Your task to perform on an android device: clear all cookies in the chrome app Image 0: 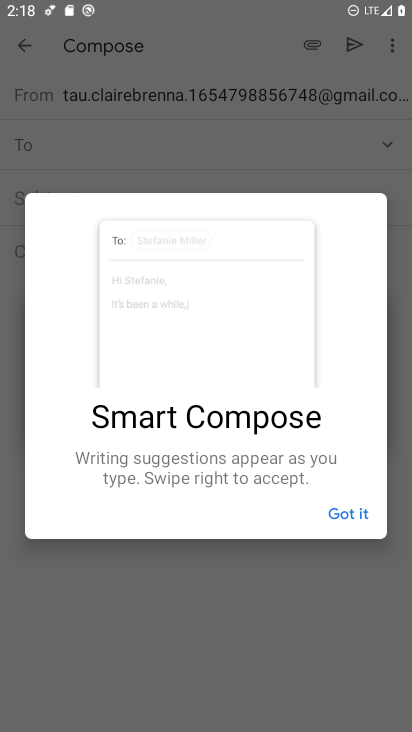
Step 0: press home button
Your task to perform on an android device: clear all cookies in the chrome app Image 1: 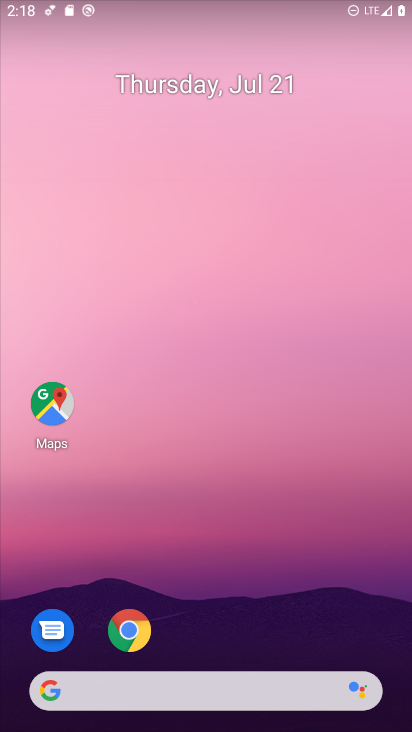
Step 1: click (126, 631)
Your task to perform on an android device: clear all cookies in the chrome app Image 2: 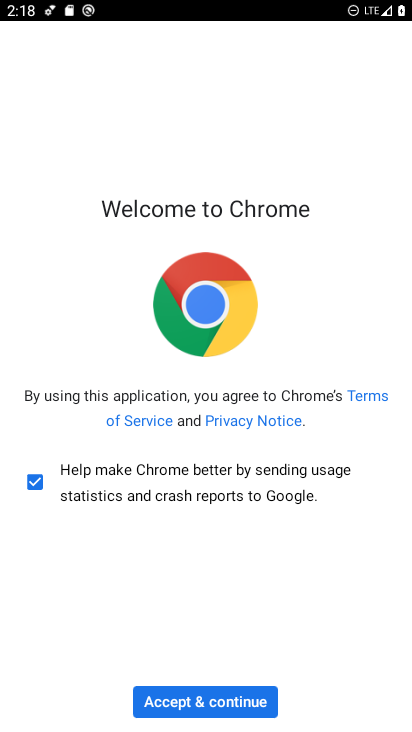
Step 2: click (255, 713)
Your task to perform on an android device: clear all cookies in the chrome app Image 3: 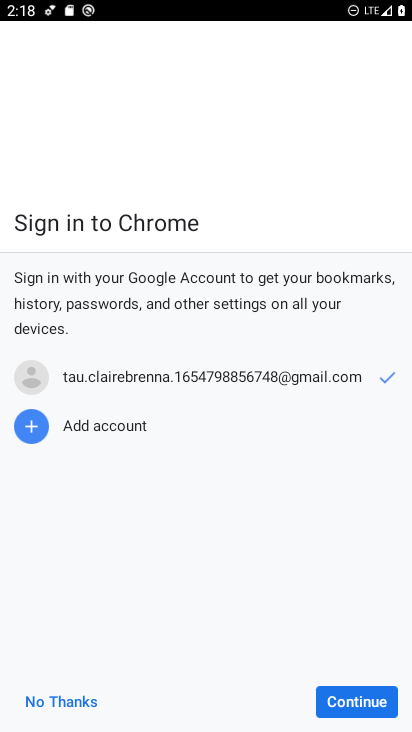
Step 3: click (336, 698)
Your task to perform on an android device: clear all cookies in the chrome app Image 4: 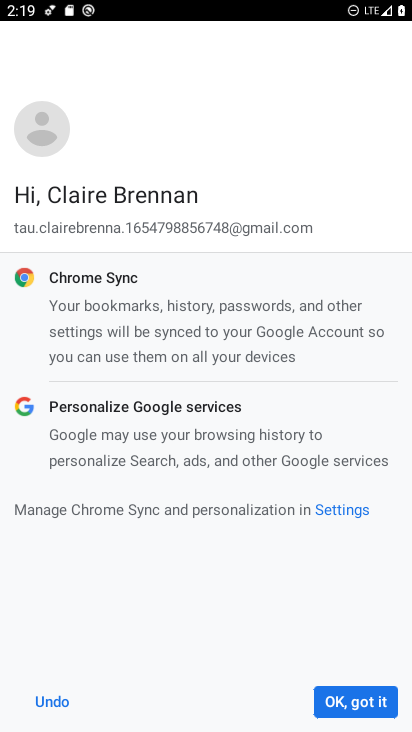
Step 4: click (328, 702)
Your task to perform on an android device: clear all cookies in the chrome app Image 5: 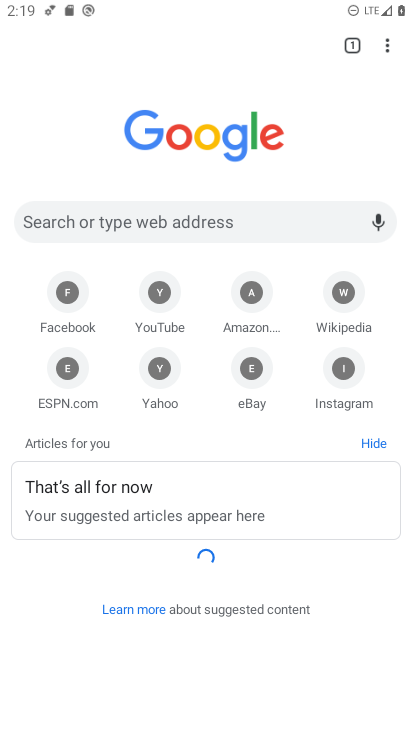
Step 5: click (387, 34)
Your task to perform on an android device: clear all cookies in the chrome app Image 6: 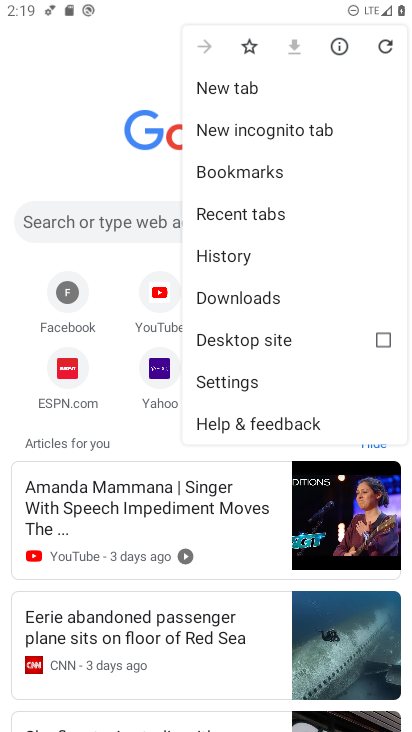
Step 6: click (230, 385)
Your task to perform on an android device: clear all cookies in the chrome app Image 7: 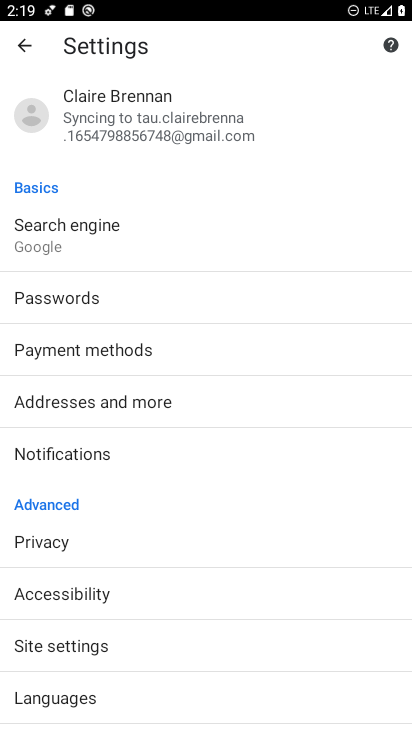
Step 7: click (66, 549)
Your task to perform on an android device: clear all cookies in the chrome app Image 8: 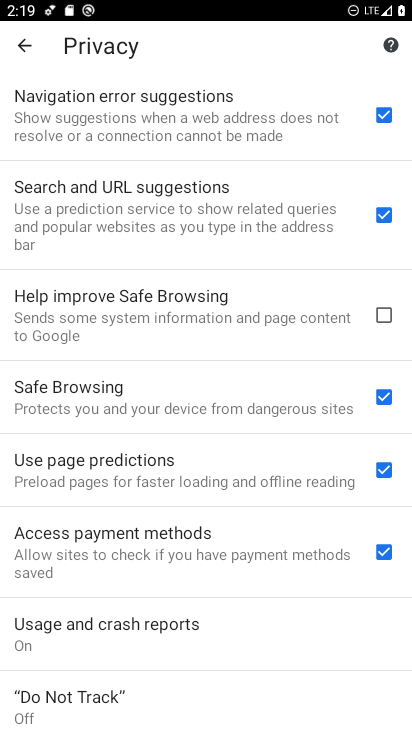
Step 8: drag from (174, 612) to (190, 269)
Your task to perform on an android device: clear all cookies in the chrome app Image 9: 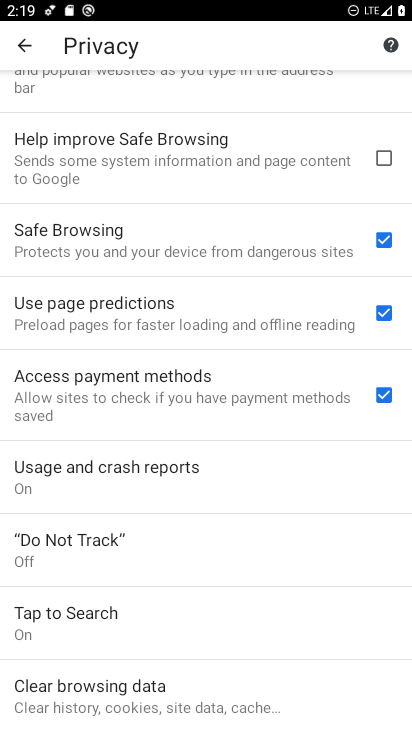
Step 9: click (157, 677)
Your task to perform on an android device: clear all cookies in the chrome app Image 10: 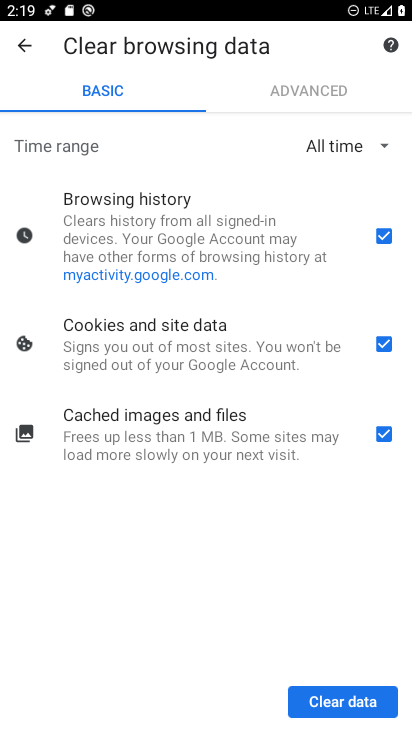
Step 10: click (381, 231)
Your task to perform on an android device: clear all cookies in the chrome app Image 11: 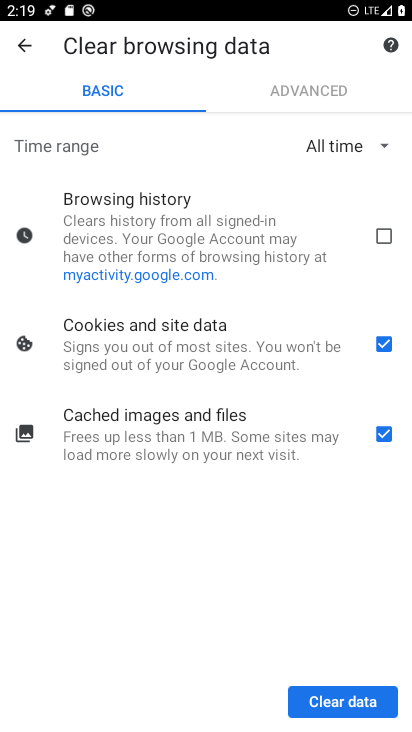
Step 11: click (382, 440)
Your task to perform on an android device: clear all cookies in the chrome app Image 12: 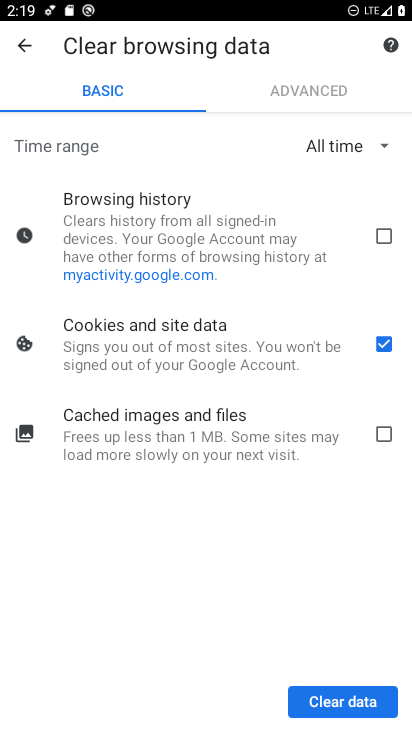
Step 12: click (367, 701)
Your task to perform on an android device: clear all cookies in the chrome app Image 13: 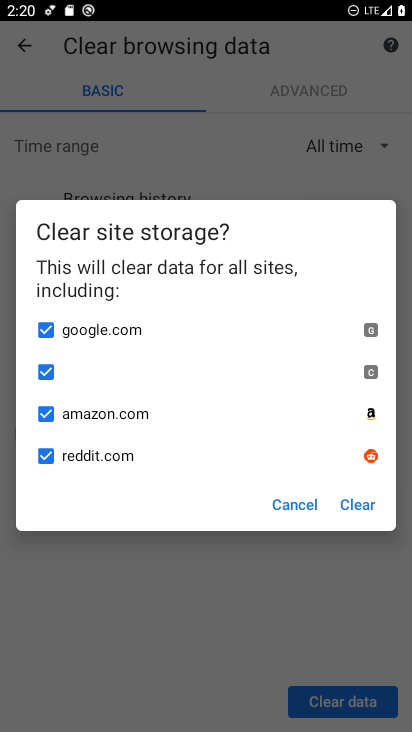
Step 13: click (362, 499)
Your task to perform on an android device: clear all cookies in the chrome app Image 14: 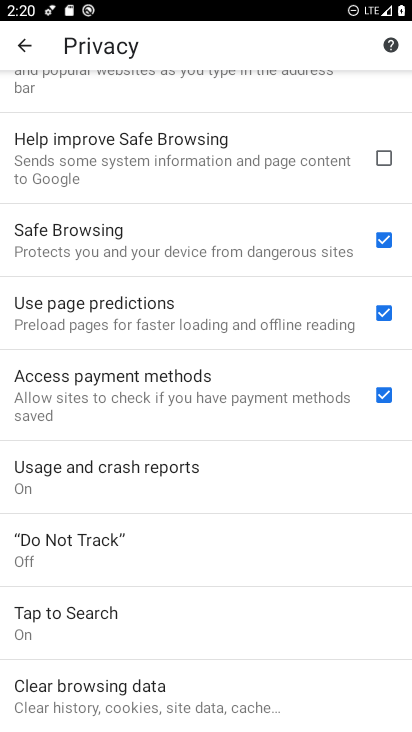
Step 14: task complete